Your task to perform on an android device: check google app version Image 0: 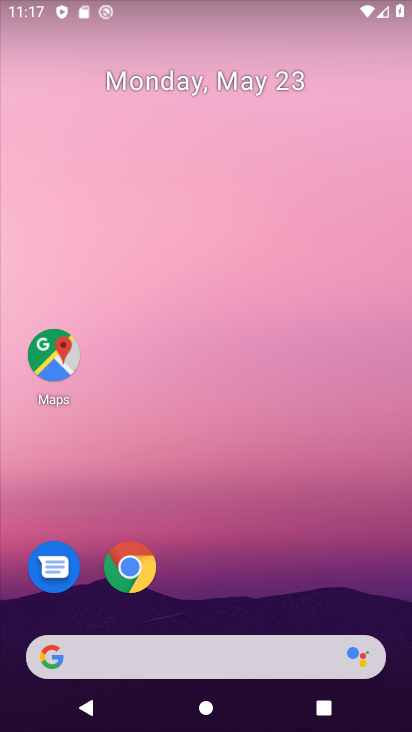
Step 0: drag from (246, 574) to (225, 151)
Your task to perform on an android device: check google app version Image 1: 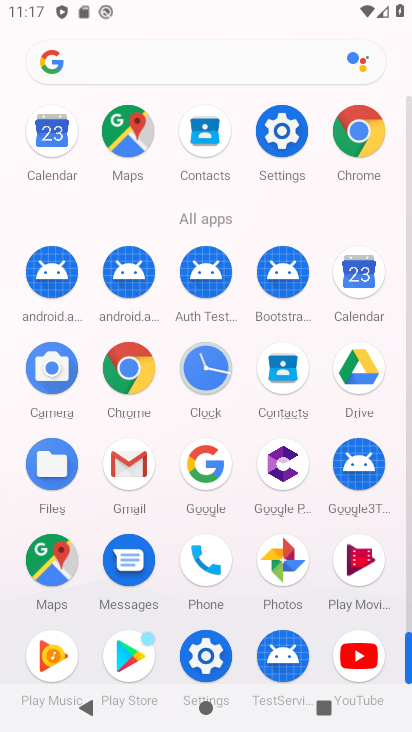
Step 1: drag from (244, 586) to (282, 241)
Your task to perform on an android device: check google app version Image 2: 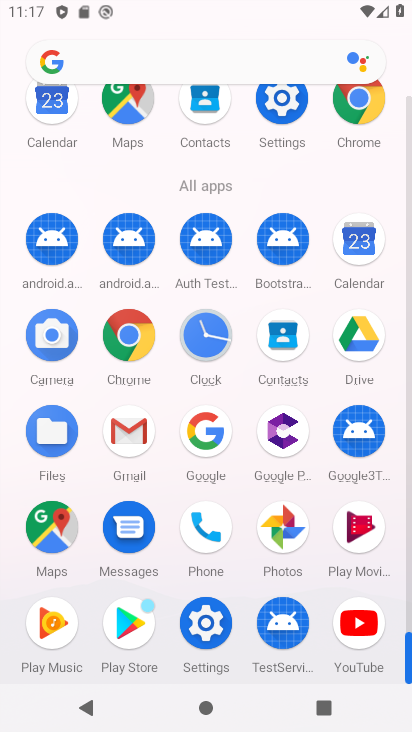
Step 2: click (189, 445)
Your task to perform on an android device: check google app version Image 3: 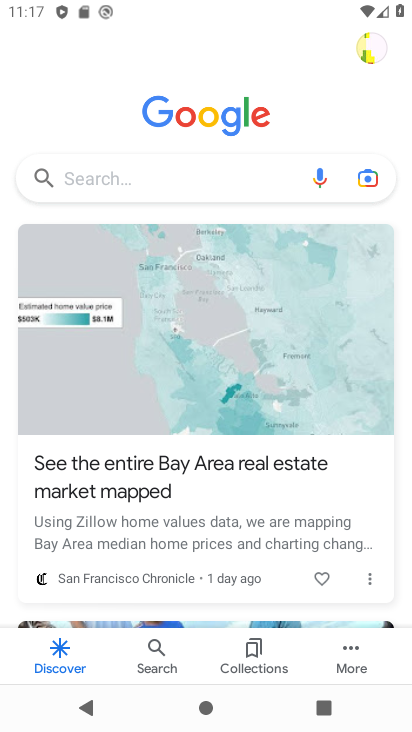
Step 3: click (346, 643)
Your task to perform on an android device: check google app version Image 4: 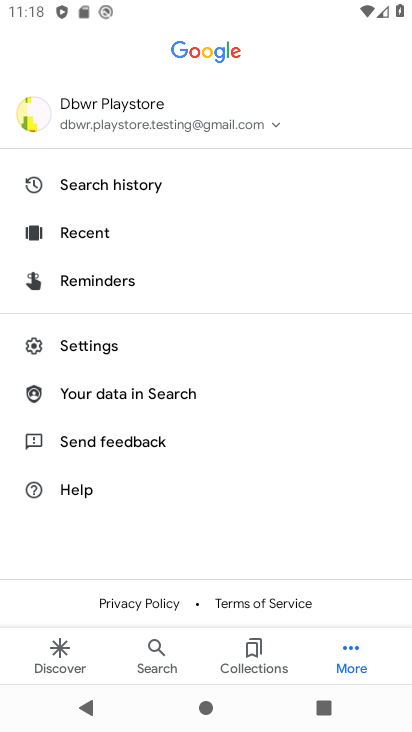
Step 4: click (96, 351)
Your task to perform on an android device: check google app version Image 5: 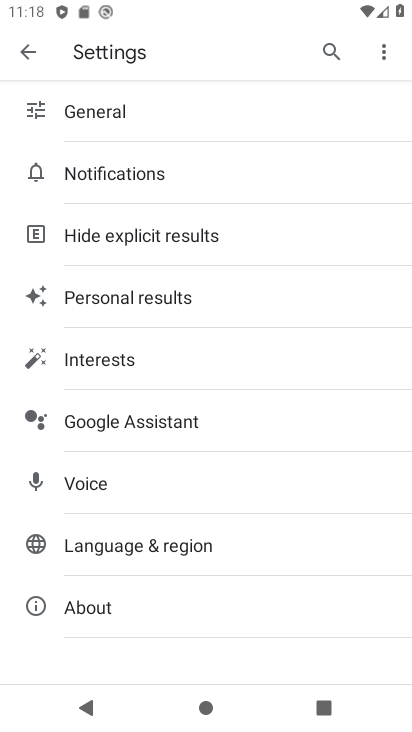
Step 5: click (86, 609)
Your task to perform on an android device: check google app version Image 6: 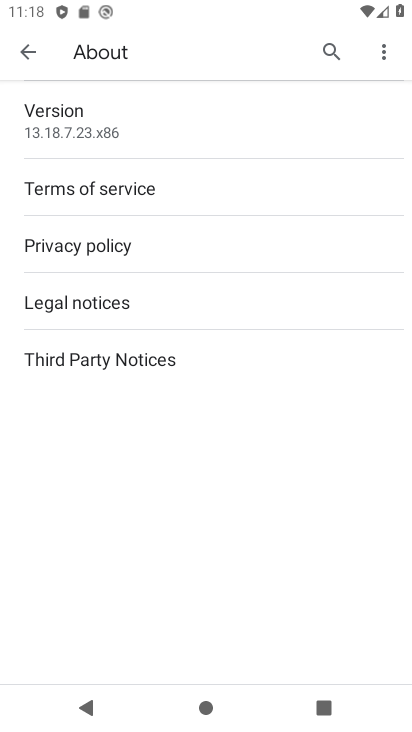
Step 6: task complete